Your task to perform on an android device: Open Google Chrome Image 0: 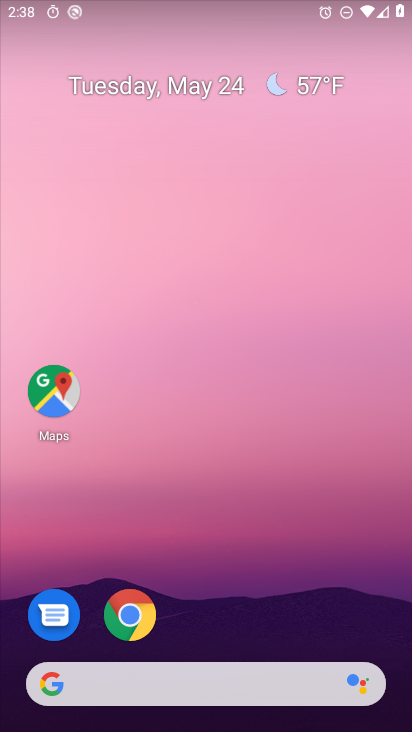
Step 0: click (128, 609)
Your task to perform on an android device: Open Google Chrome Image 1: 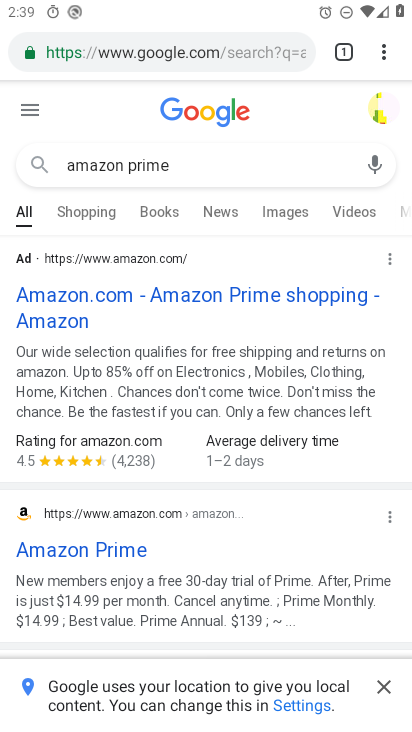
Step 1: task complete